Your task to perform on an android device: Search for sushi restaurants on Maps Image 0: 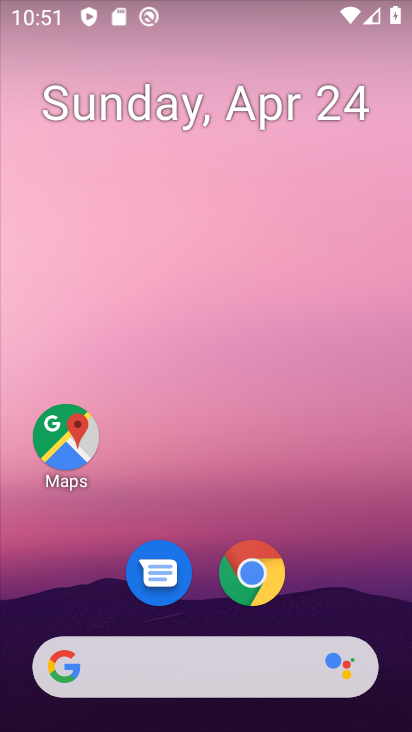
Step 0: drag from (309, 616) to (243, 109)
Your task to perform on an android device: Search for sushi restaurants on Maps Image 1: 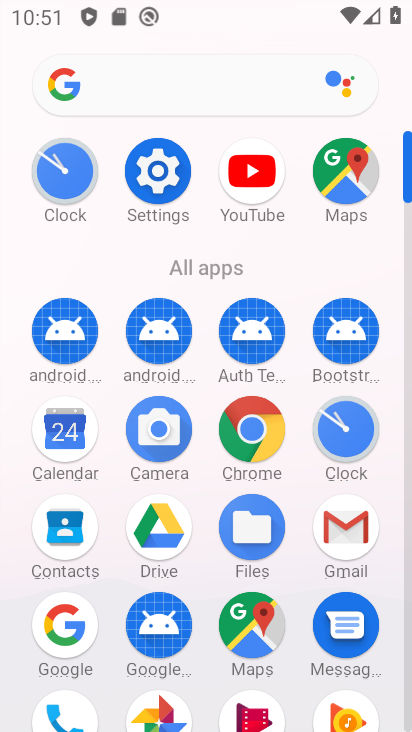
Step 1: click (256, 635)
Your task to perform on an android device: Search for sushi restaurants on Maps Image 2: 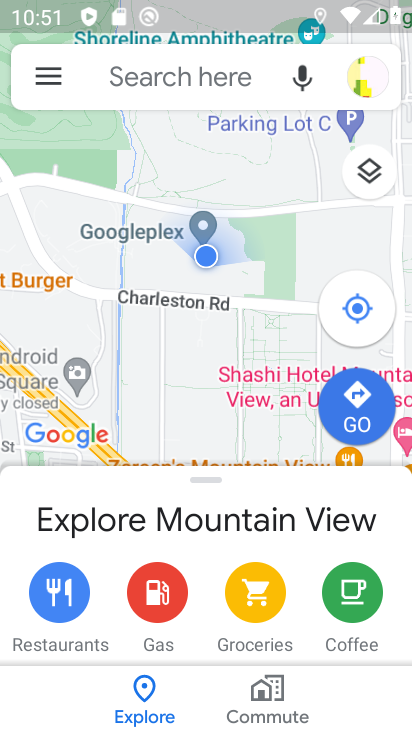
Step 2: click (180, 77)
Your task to perform on an android device: Search for sushi restaurants on Maps Image 3: 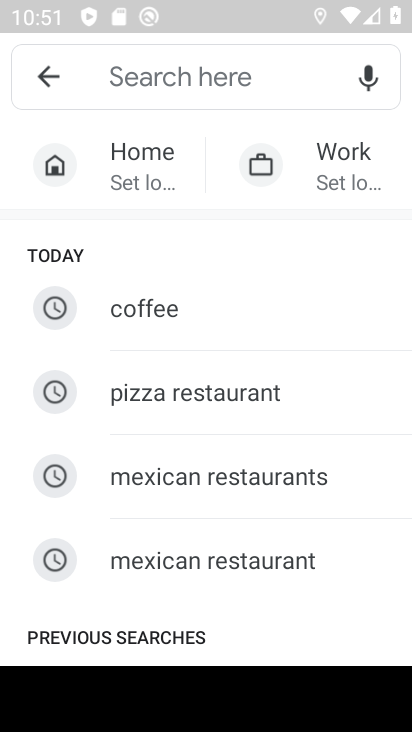
Step 3: type "sushi restaurants"
Your task to perform on an android device: Search for sushi restaurants on Maps Image 4: 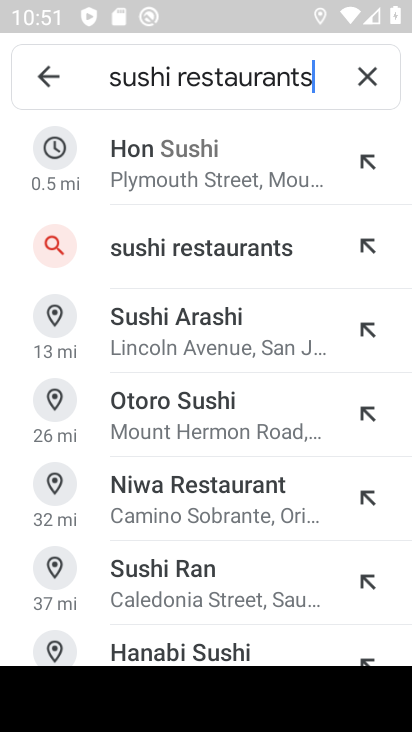
Step 4: click (192, 244)
Your task to perform on an android device: Search for sushi restaurants on Maps Image 5: 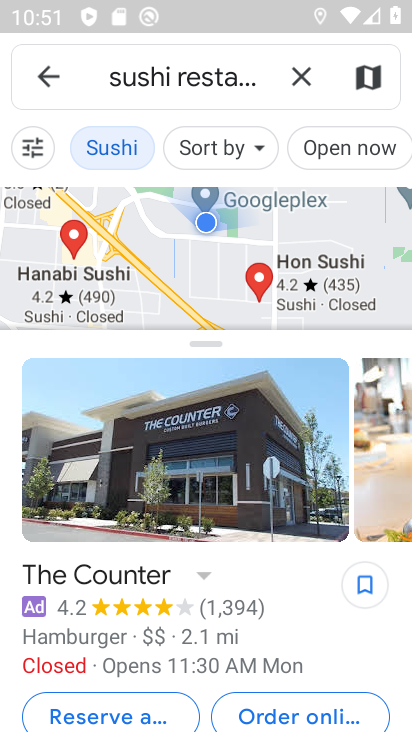
Step 5: task complete